Your task to perform on an android device: open wifi settings Image 0: 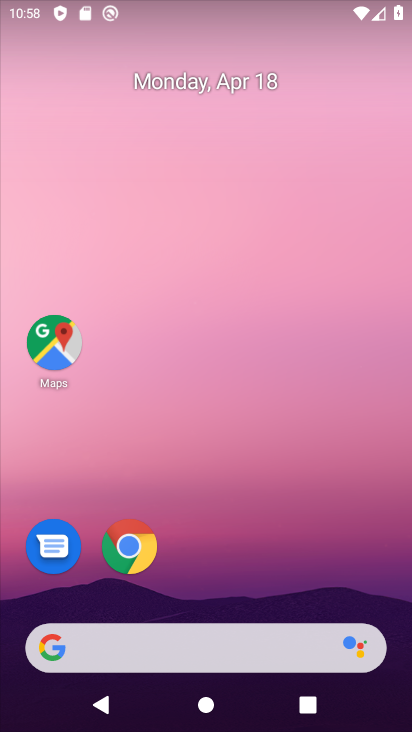
Step 0: drag from (372, 578) to (380, 102)
Your task to perform on an android device: open wifi settings Image 1: 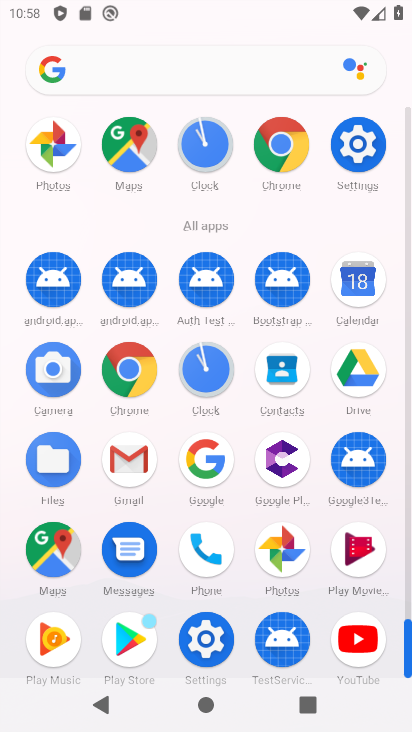
Step 1: click (360, 153)
Your task to perform on an android device: open wifi settings Image 2: 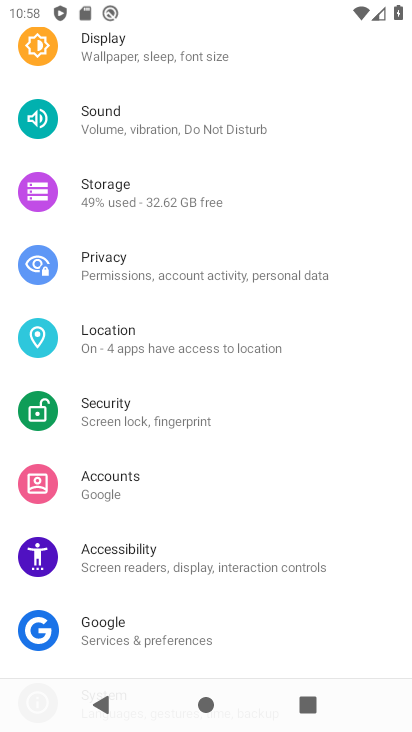
Step 2: drag from (364, 488) to (381, 260)
Your task to perform on an android device: open wifi settings Image 3: 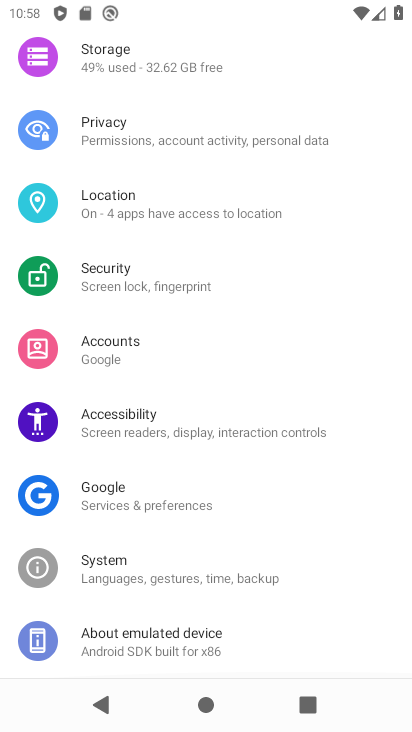
Step 3: drag from (374, 227) to (376, 356)
Your task to perform on an android device: open wifi settings Image 4: 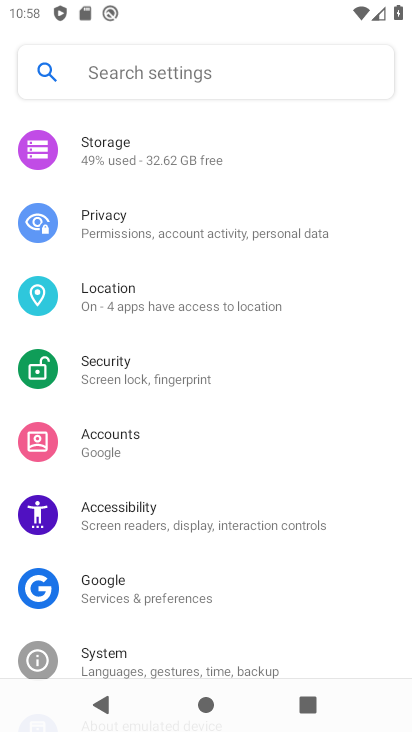
Step 4: drag from (370, 251) to (351, 393)
Your task to perform on an android device: open wifi settings Image 5: 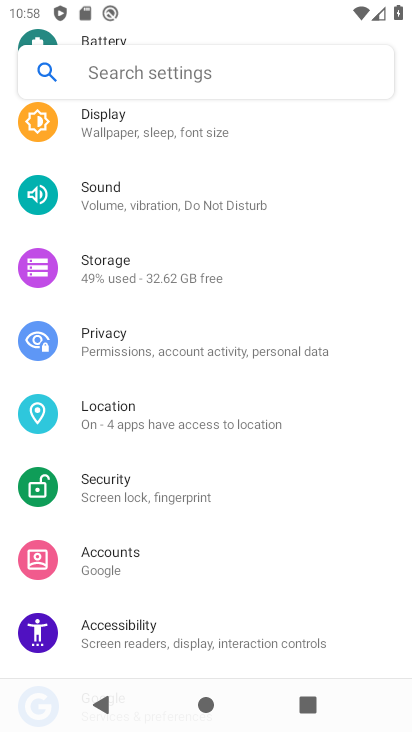
Step 5: drag from (366, 219) to (354, 409)
Your task to perform on an android device: open wifi settings Image 6: 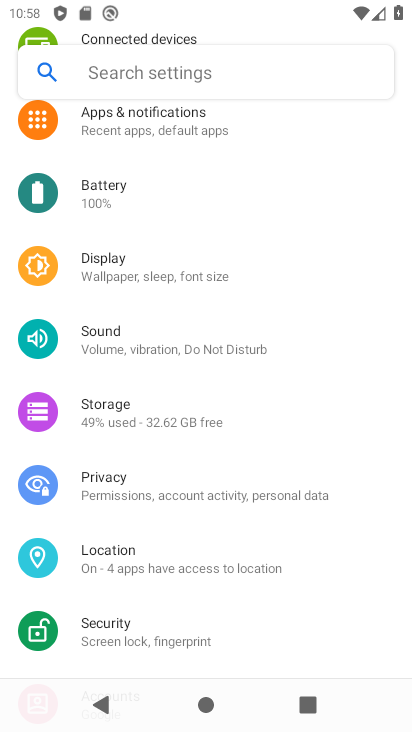
Step 6: drag from (356, 226) to (343, 409)
Your task to perform on an android device: open wifi settings Image 7: 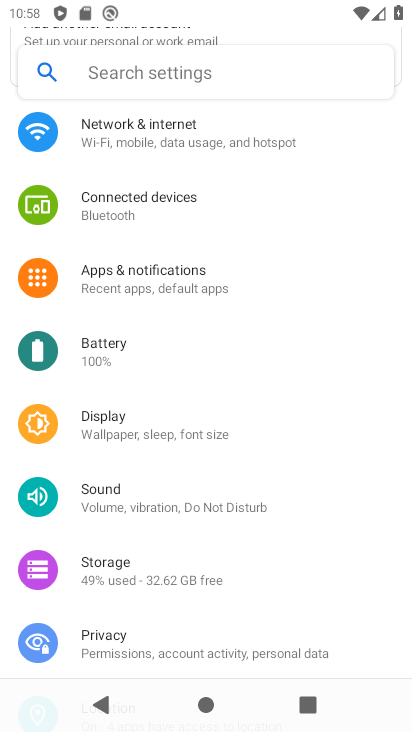
Step 7: drag from (351, 211) to (341, 358)
Your task to perform on an android device: open wifi settings Image 8: 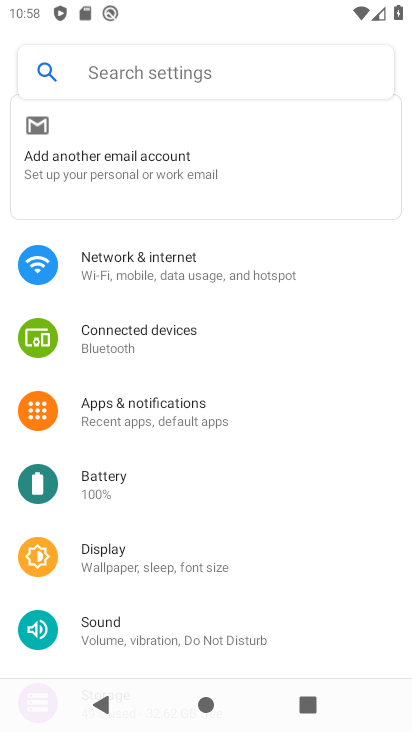
Step 8: click (216, 250)
Your task to perform on an android device: open wifi settings Image 9: 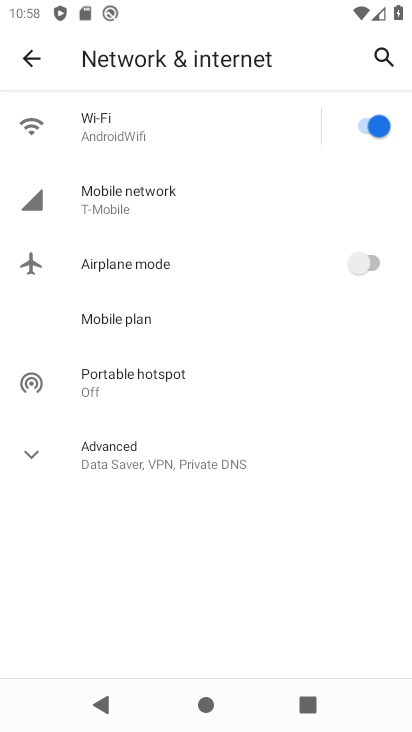
Step 9: click (129, 120)
Your task to perform on an android device: open wifi settings Image 10: 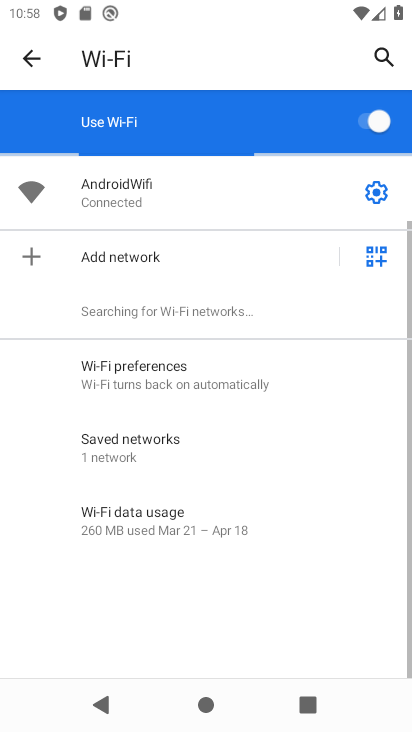
Step 10: task complete